Your task to perform on an android device: Check the news Image 0: 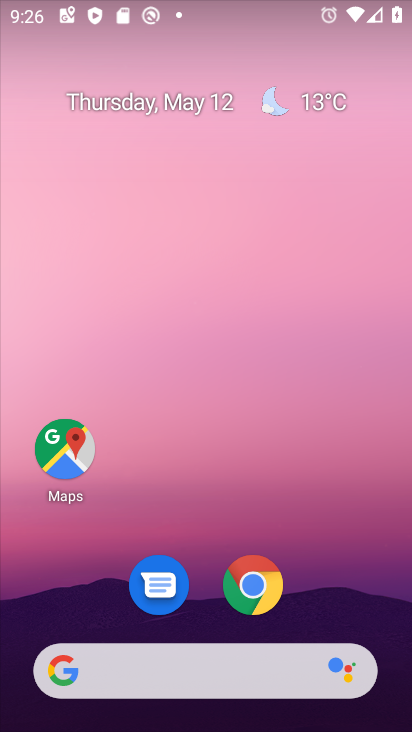
Step 0: click (172, 666)
Your task to perform on an android device: Check the news Image 1: 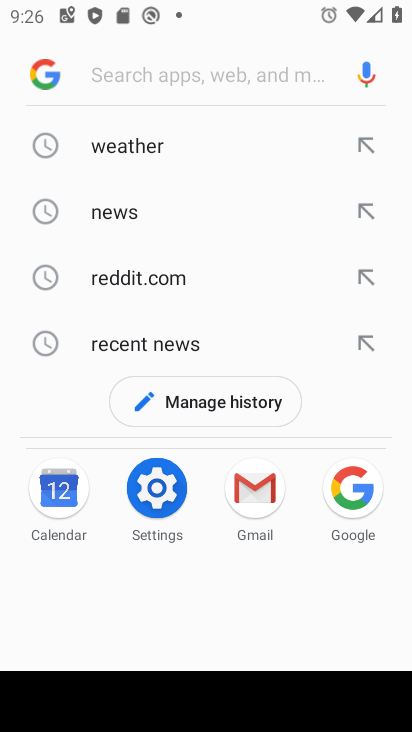
Step 1: click (86, 204)
Your task to perform on an android device: Check the news Image 2: 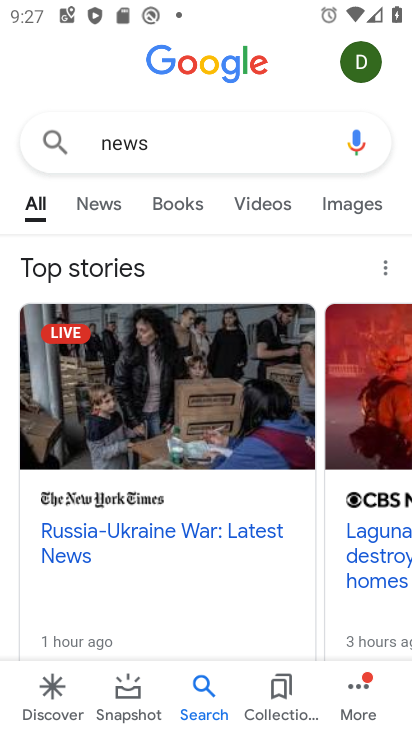
Step 2: click (105, 202)
Your task to perform on an android device: Check the news Image 3: 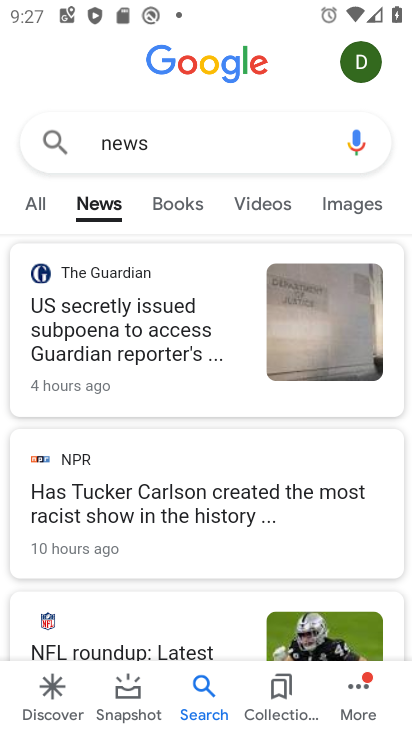
Step 3: task complete